Your task to perform on an android device: Open the map Image 0: 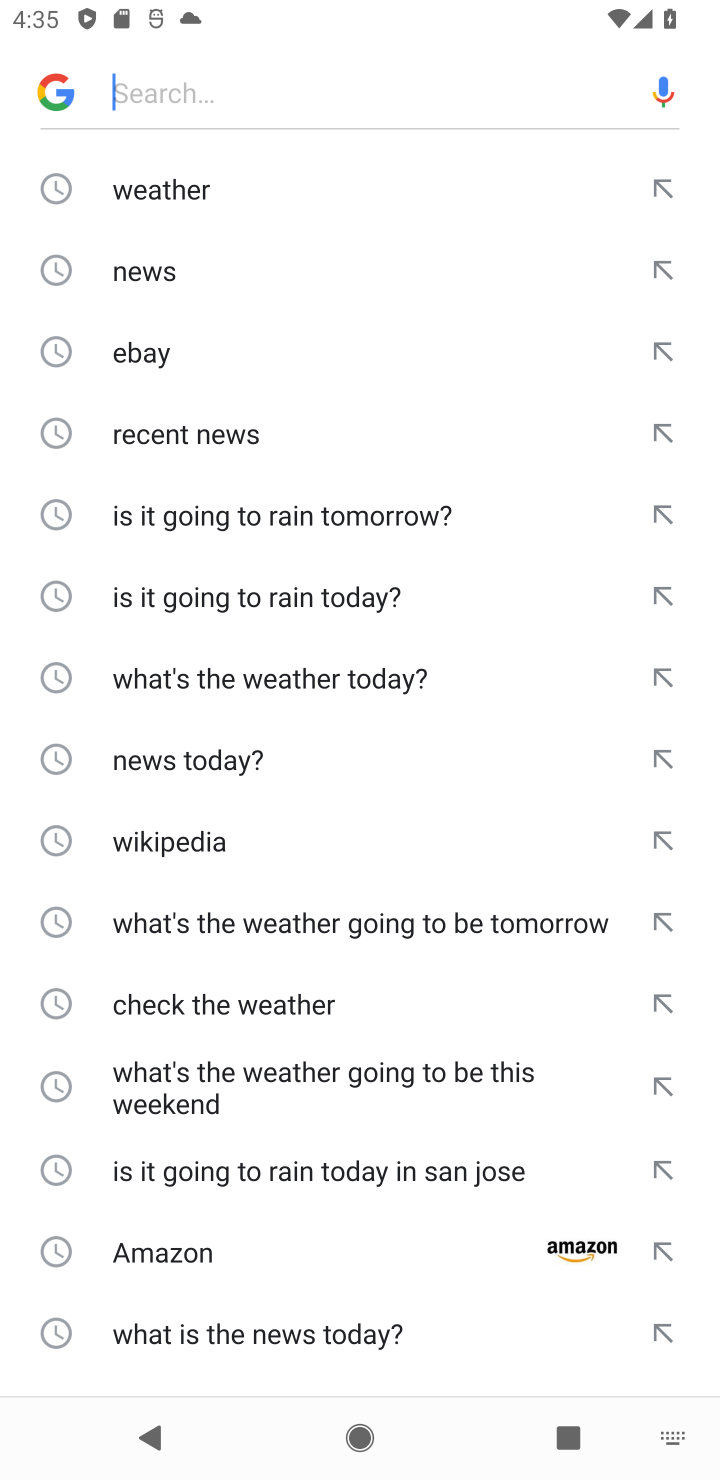
Step 0: drag from (387, 1126) to (492, 197)
Your task to perform on an android device: Open the map Image 1: 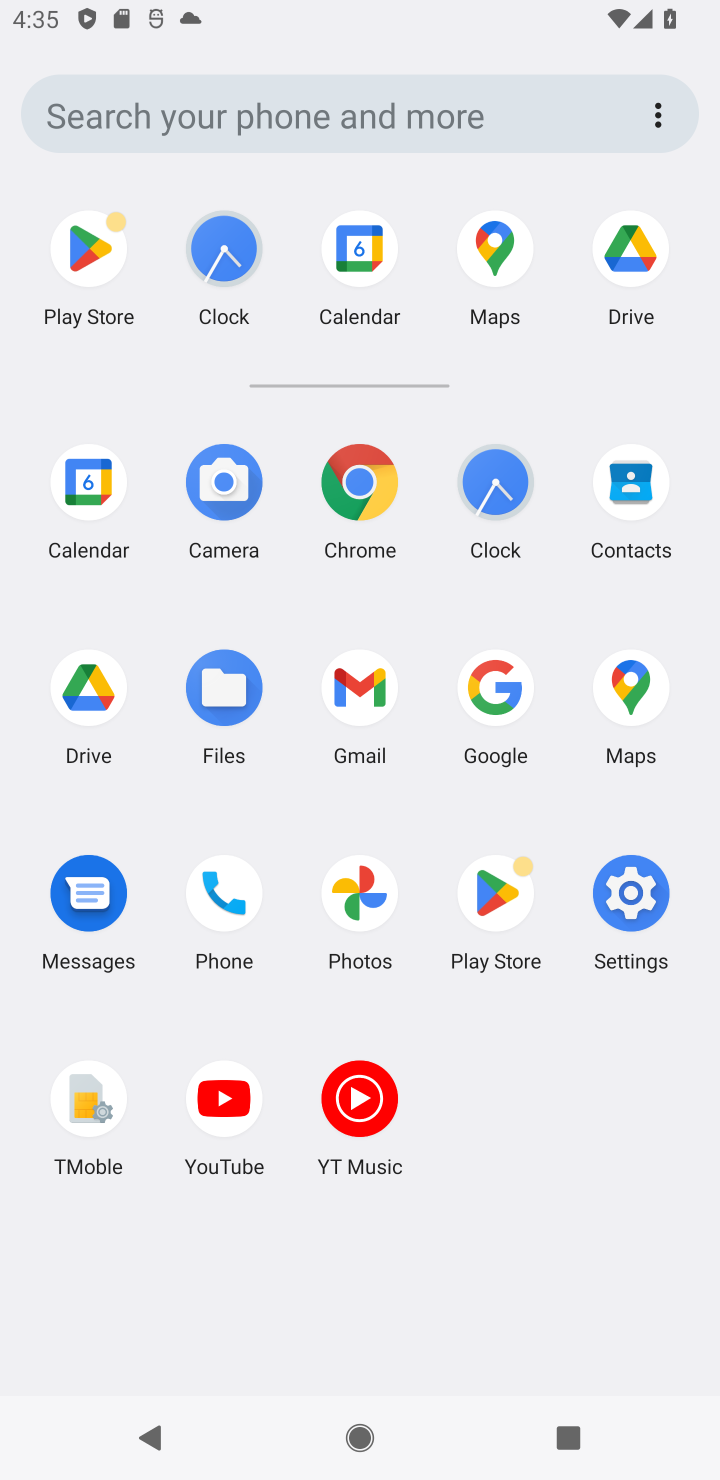
Step 1: drag from (361, 1241) to (533, 482)
Your task to perform on an android device: Open the map Image 2: 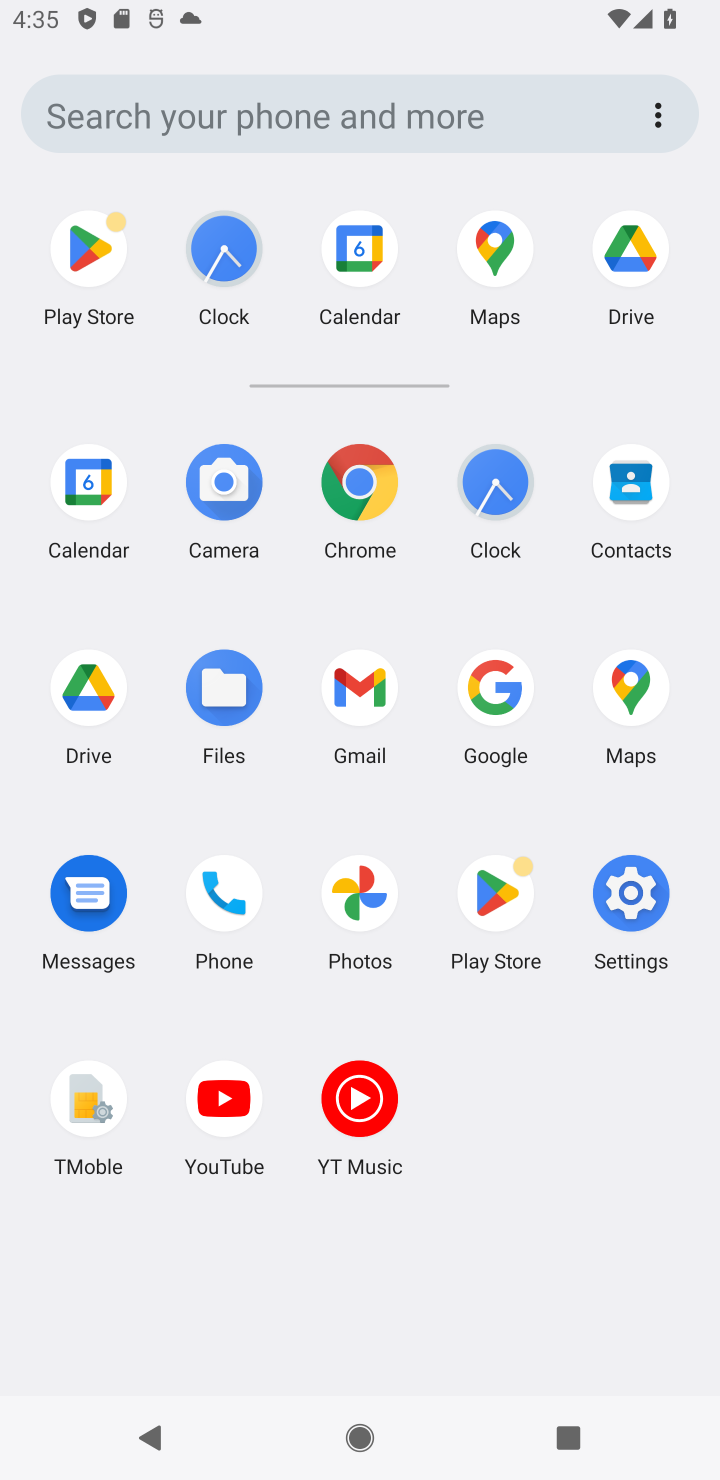
Step 2: click (631, 682)
Your task to perform on an android device: Open the map Image 3: 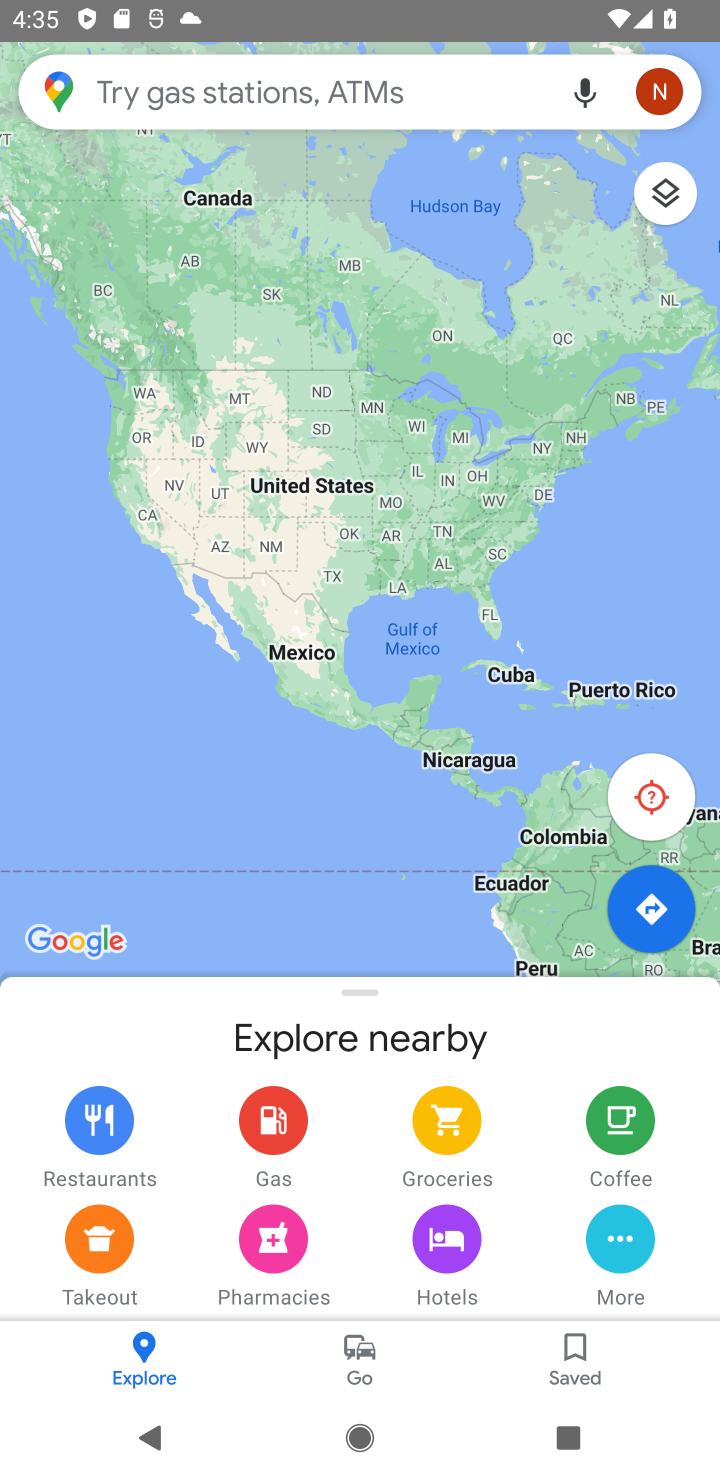
Step 3: task complete